Your task to perform on an android device: turn on sleep mode Image 0: 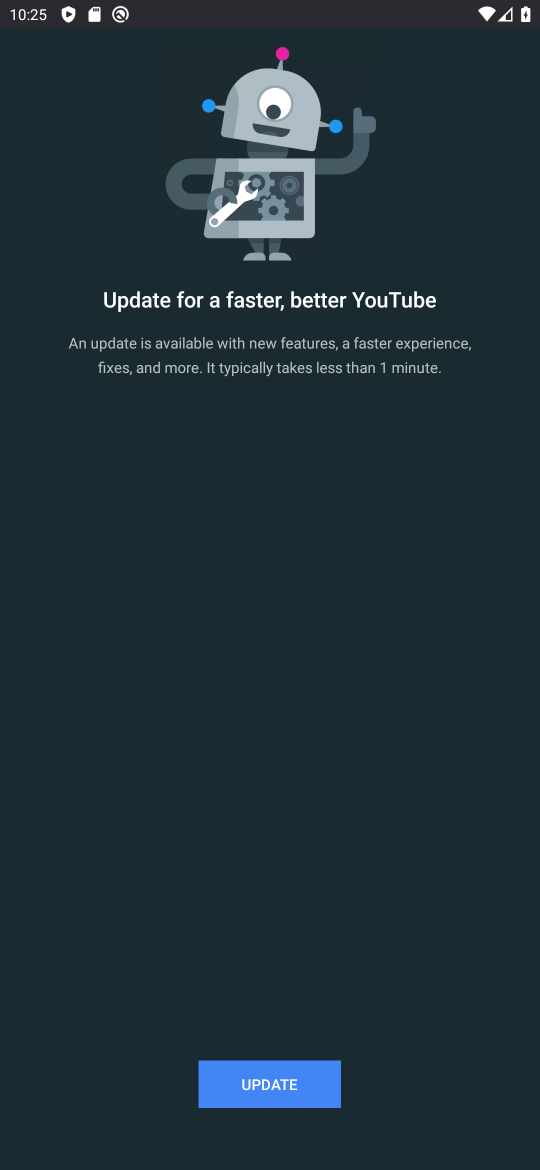
Step 0: press home button
Your task to perform on an android device: turn on sleep mode Image 1: 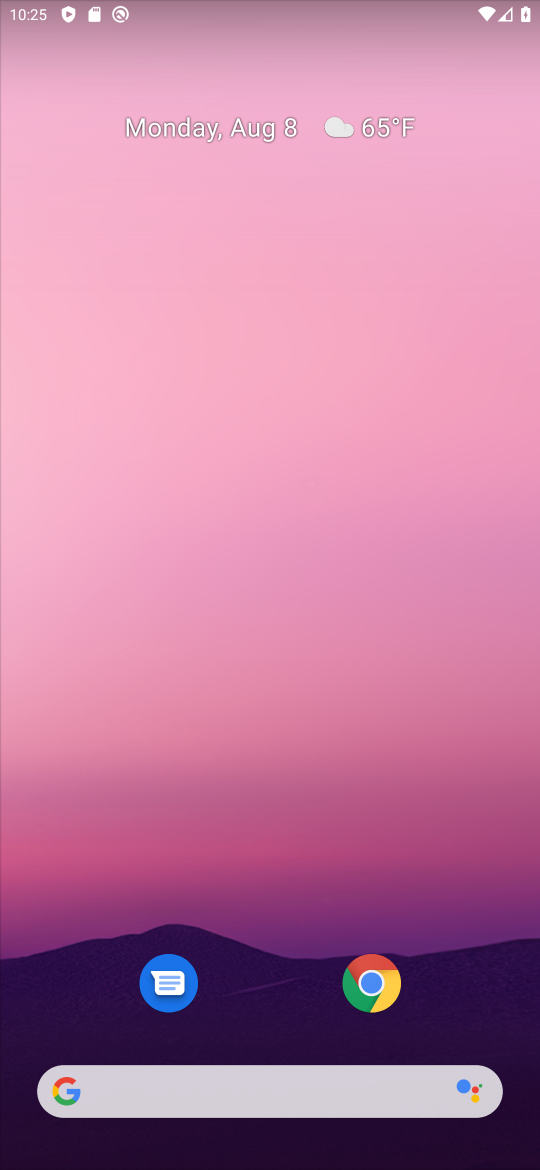
Step 1: drag from (293, 1062) to (309, 707)
Your task to perform on an android device: turn on sleep mode Image 2: 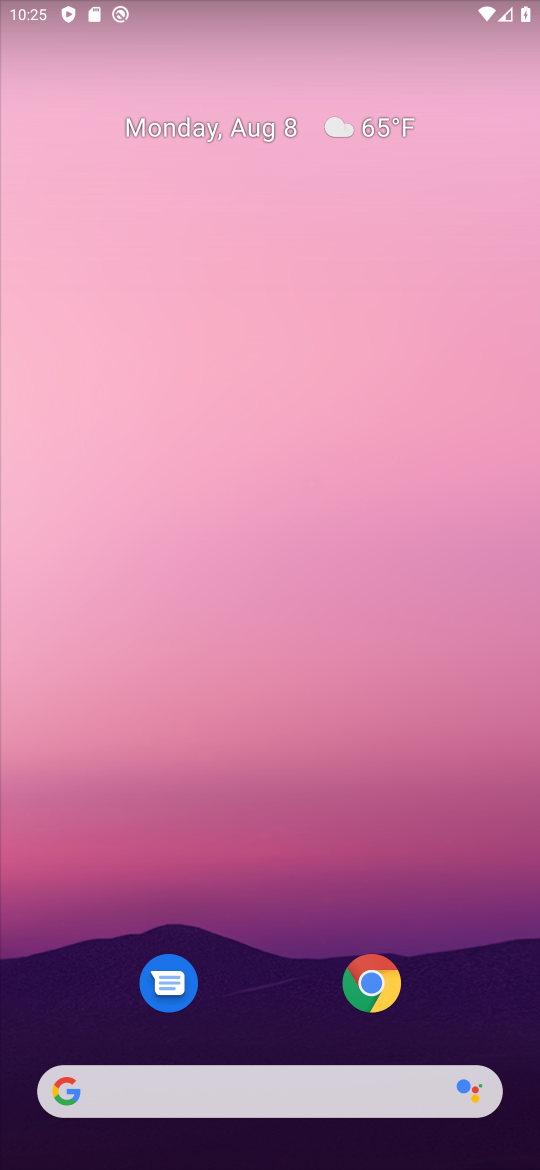
Step 2: drag from (300, 1054) to (273, 290)
Your task to perform on an android device: turn on sleep mode Image 3: 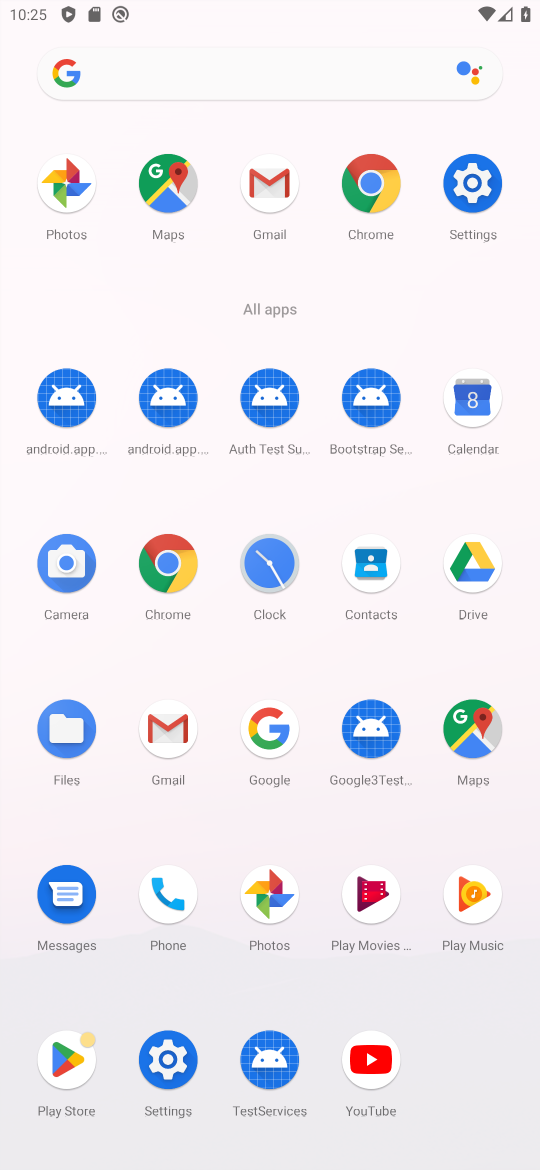
Step 3: click (513, 204)
Your task to perform on an android device: turn on sleep mode Image 4: 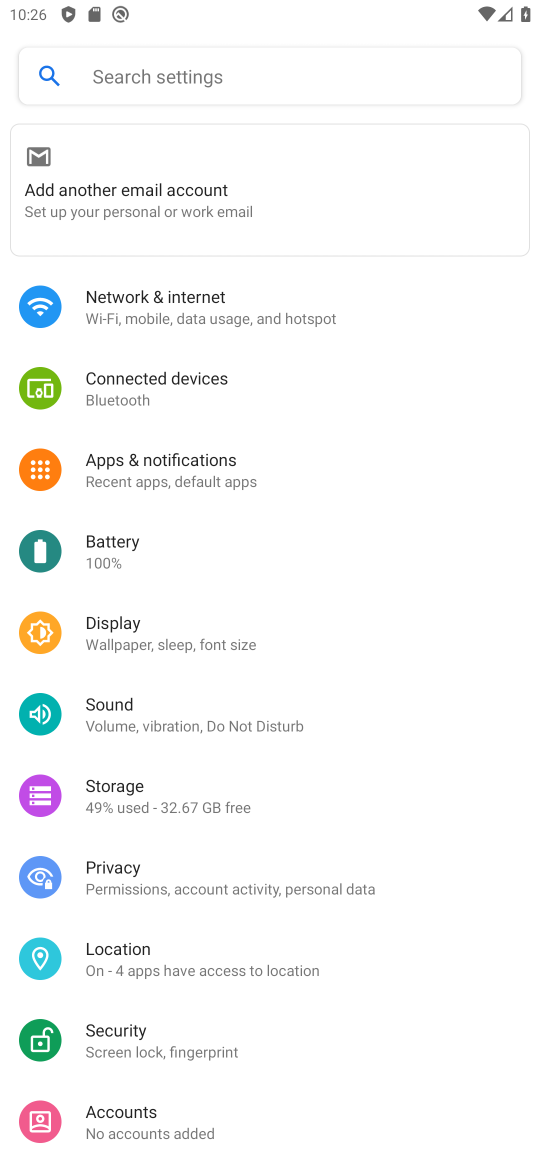
Step 4: task complete